Your task to perform on an android device: Open Maps and search for coffee Image 0: 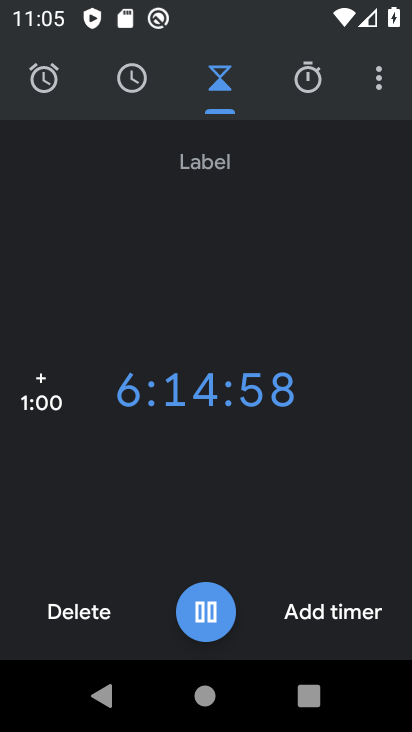
Step 0: press home button
Your task to perform on an android device: Open Maps and search for coffee Image 1: 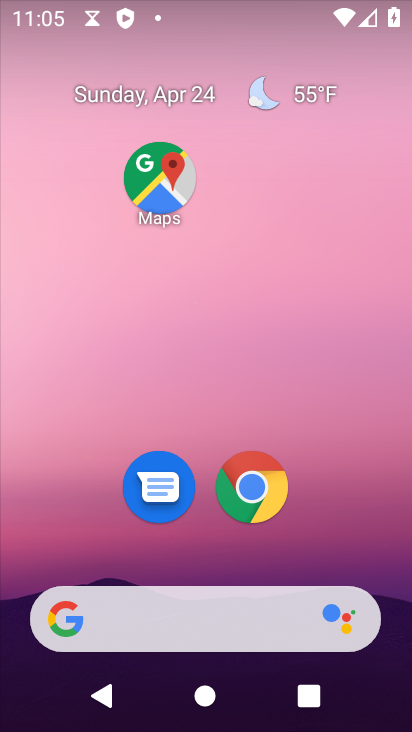
Step 1: click (154, 176)
Your task to perform on an android device: Open Maps and search for coffee Image 2: 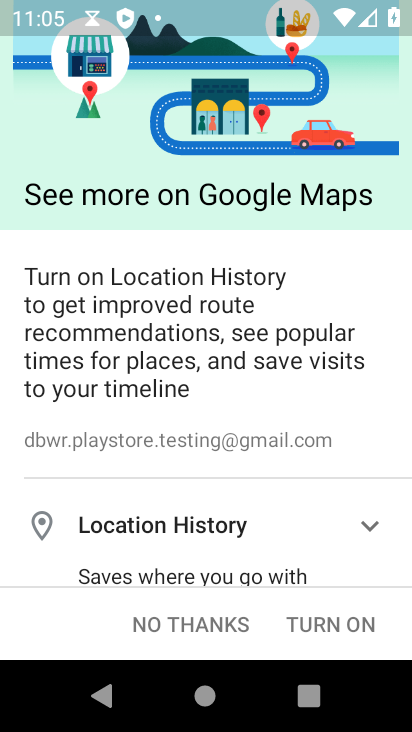
Step 2: task complete